Your task to perform on an android device: find snoozed emails in the gmail app Image 0: 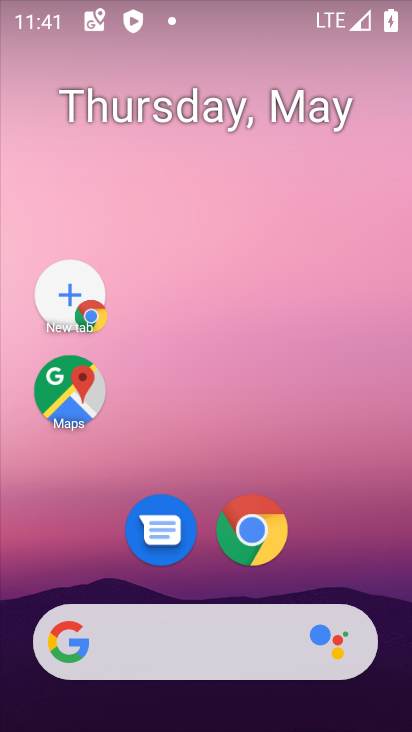
Step 0: drag from (289, 698) to (229, 93)
Your task to perform on an android device: find snoozed emails in the gmail app Image 1: 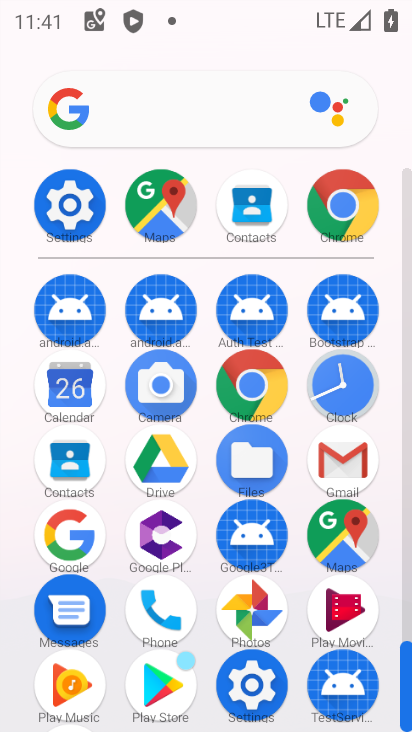
Step 1: click (334, 456)
Your task to perform on an android device: find snoozed emails in the gmail app Image 2: 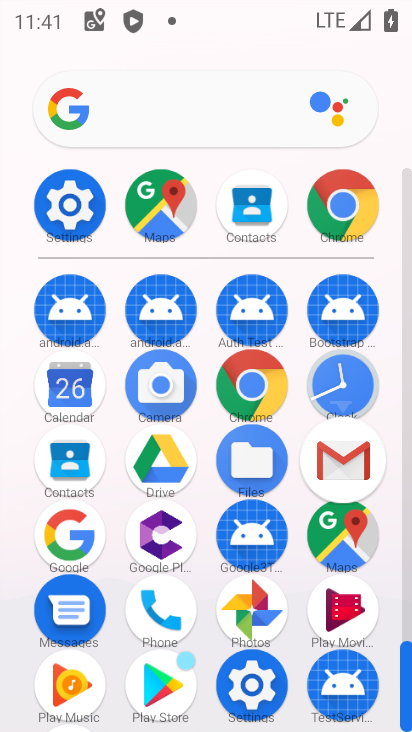
Step 2: click (337, 457)
Your task to perform on an android device: find snoozed emails in the gmail app Image 3: 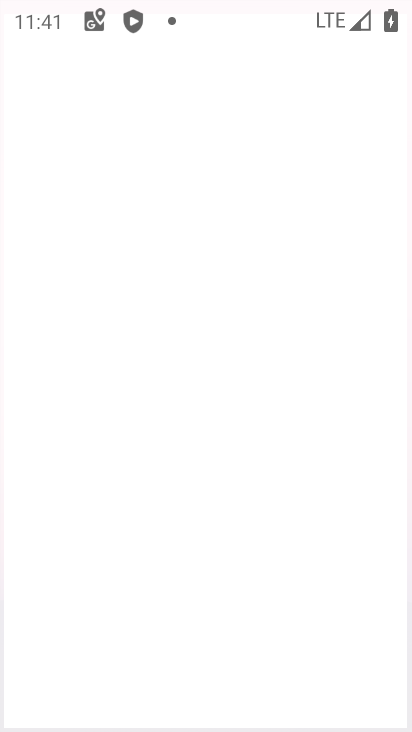
Step 3: click (337, 457)
Your task to perform on an android device: find snoozed emails in the gmail app Image 4: 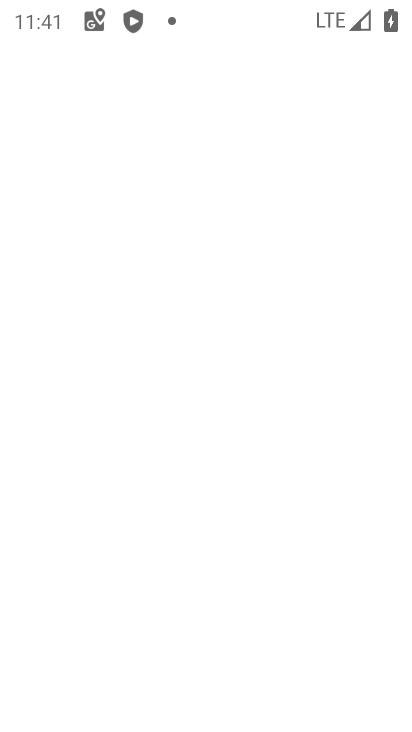
Step 4: click (343, 455)
Your task to perform on an android device: find snoozed emails in the gmail app Image 5: 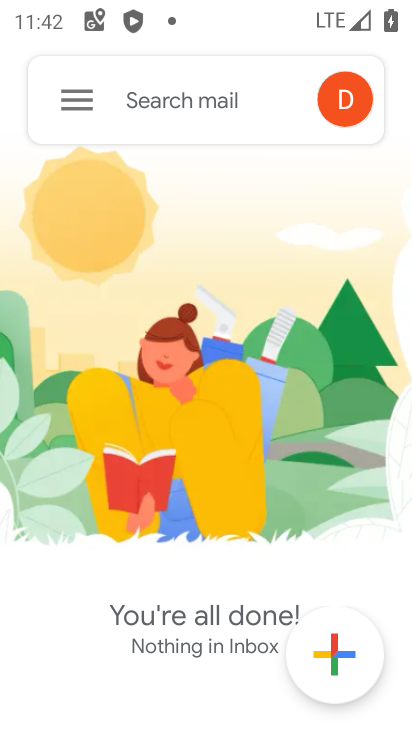
Step 5: click (76, 98)
Your task to perform on an android device: find snoozed emails in the gmail app Image 6: 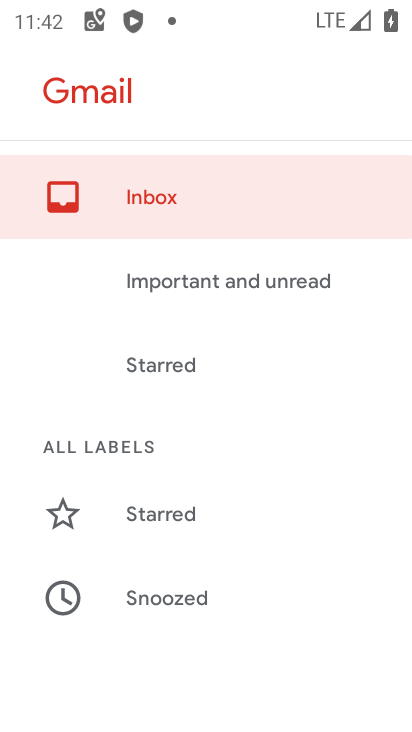
Step 6: click (74, 103)
Your task to perform on an android device: find snoozed emails in the gmail app Image 7: 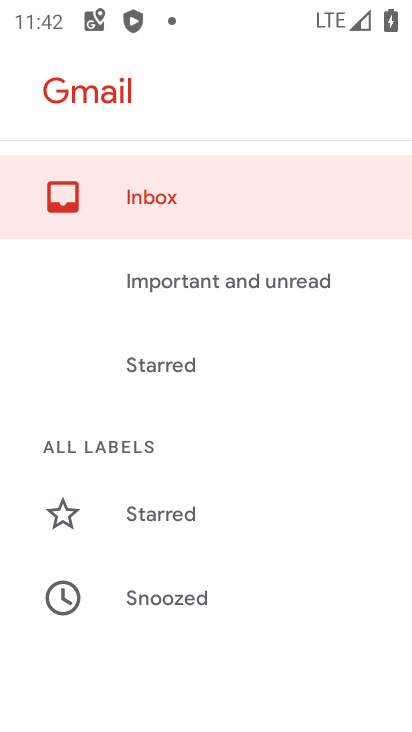
Step 7: click (83, 101)
Your task to perform on an android device: find snoozed emails in the gmail app Image 8: 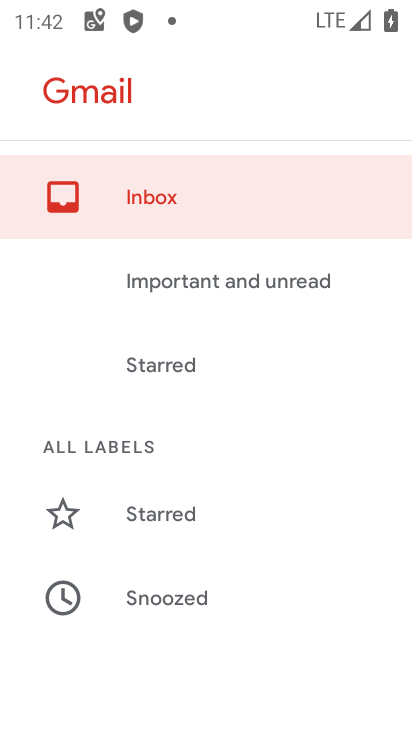
Step 8: click (82, 103)
Your task to perform on an android device: find snoozed emails in the gmail app Image 9: 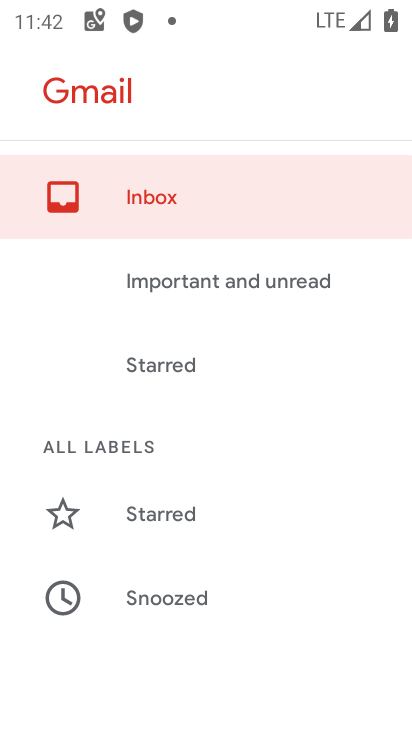
Step 9: click (83, 105)
Your task to perform on an android device: find snoozed emails in the gmail app Image 10: 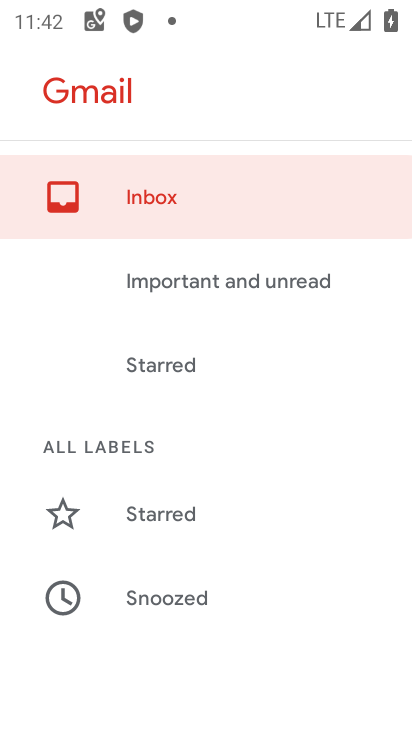
Step 10: click (86, 110)
Your task to perform on an android device: find snoozed emails in the gmail app Image 11: 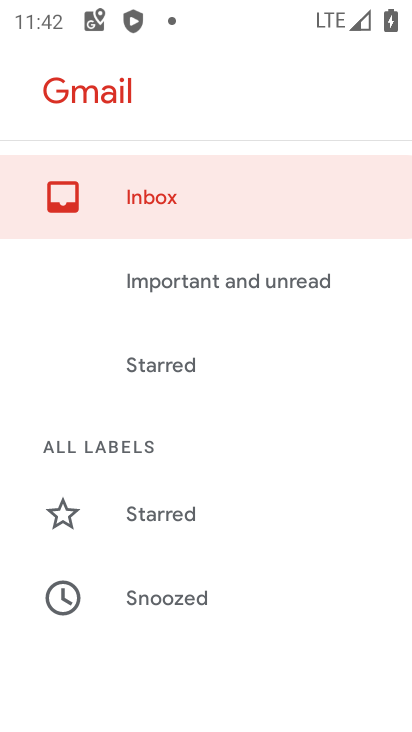
Step 11: click (174, 592)
Your task to perform on an android device: find snoozed emails in the gmail app Image 12: 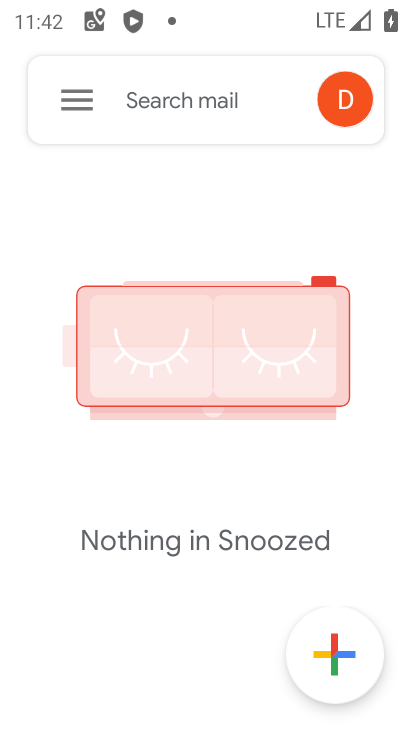
Step 12: click (173, 596)
Your task to perform on an android device: find snoozed emails in the gmail app Image 13: 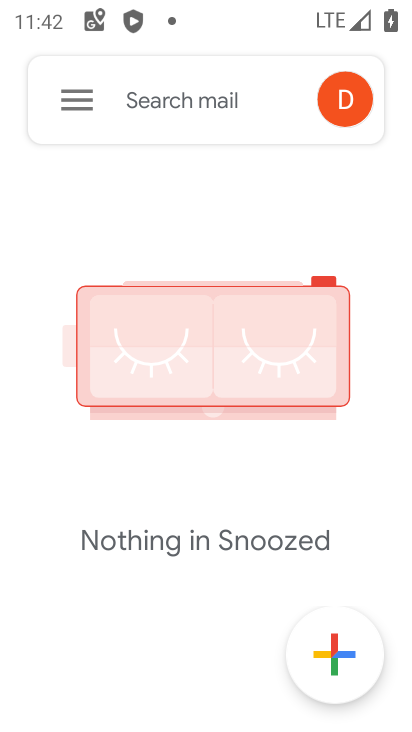
Step 13: click (179, 589)
Your task to perform on an android device: find snoozed emails in the gmail app Image 14: 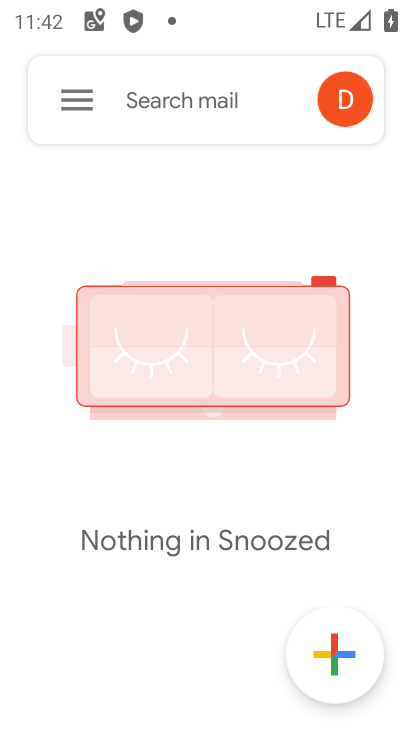
Step 14: click (192, 593)
Your task to perform on an android device: find snoozed emails in the gmail app Image 15: 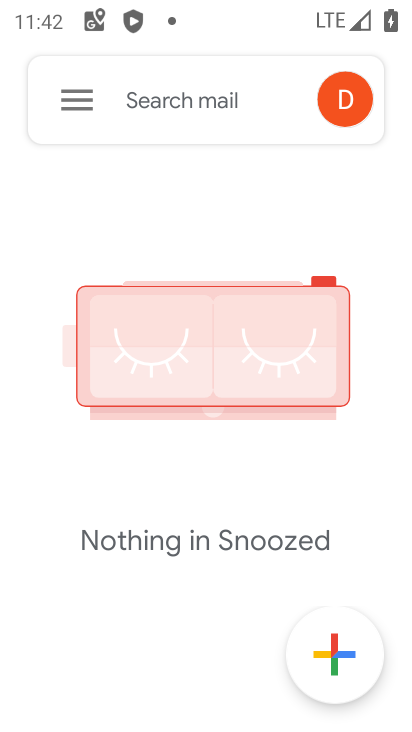
Step 15: click (188, 596)
Your task to perform on an android device: find snoozed emails in the gmail app Image 16: 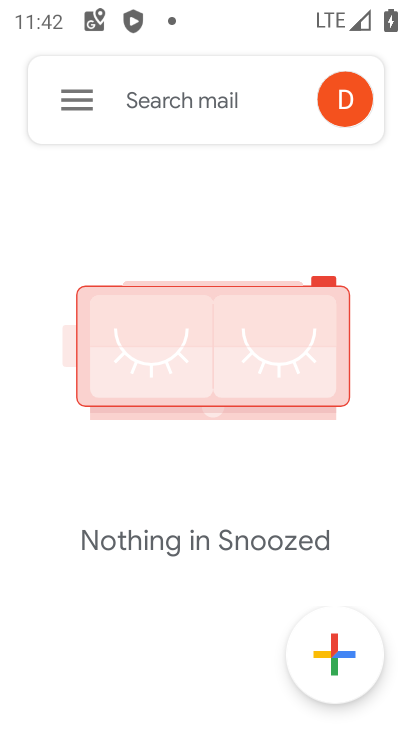
Step 16: click (123, 595)
Your task to perform on an android device: find snoozed emails in the gmail app Image 17: 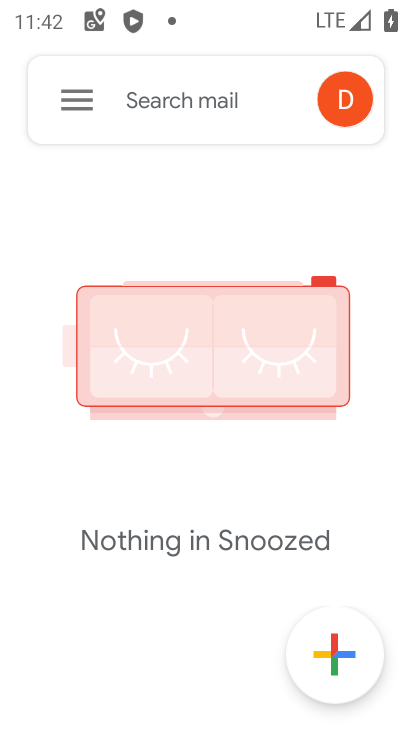
Step 17: task complete